Your task to perform on an android device: delete the emails in spam in the gmail app Image 0: 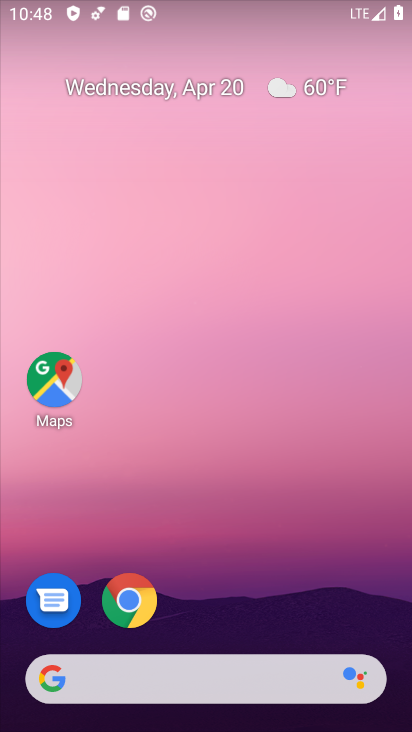
Step 0: drag from (270, 665) to (293, 99)
Your task to perform on an android device: delete the emails in spam in the gmail app Image 1: 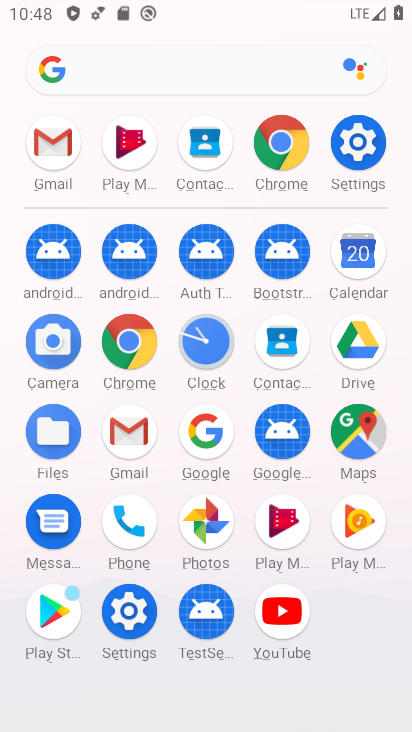
Step 1: click (61, 144)
Your task to perform on an android device: delete the emails in spam in the gmail app Image 2: 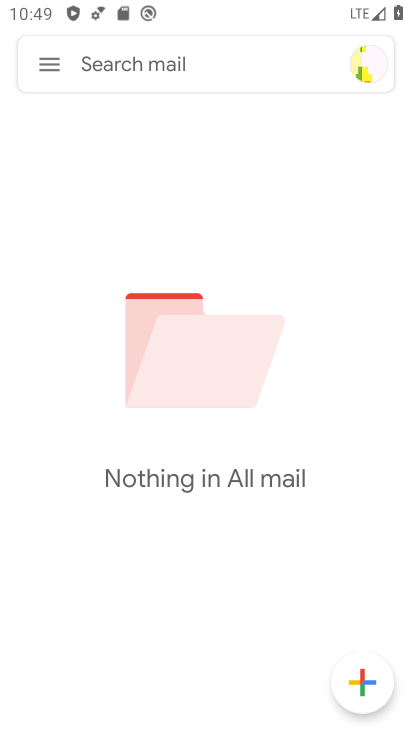
Step 2: click (42, 68)
Your task to perform on an android device: delete the emails in spam in the gmail app Image 3: 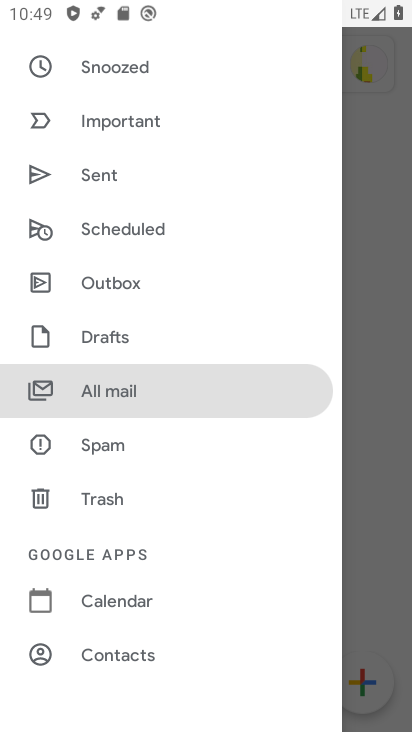
Step 3: click (106, 447)
Your task to perform on an android device: delete the emails in spam in the gmail app Image 4: 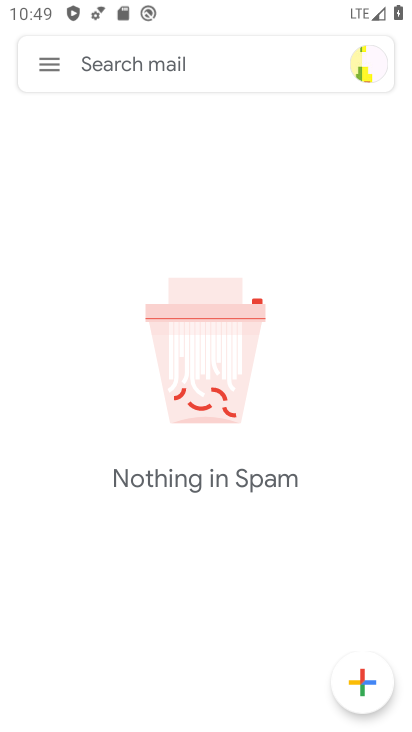
Step 4: task complete